Your task to perform on an android device: turn on translation in the chrome app Image 0: 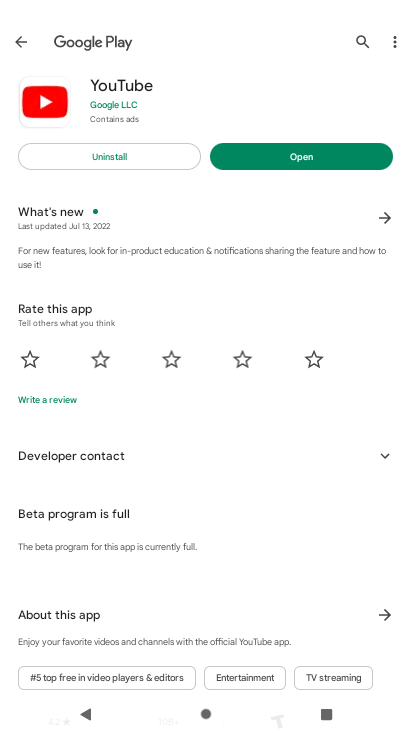
Step 0: press home button
Your task to perform on an android device: turn on translation in the chrome app Image 1: 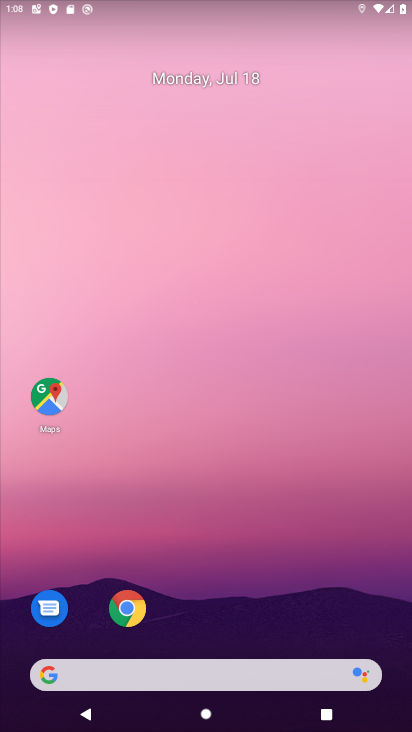
Step 1: drag from (272, 602) to (212, 174)
Your task to perform on an android device: turn on translation in the chrome app Image 2: 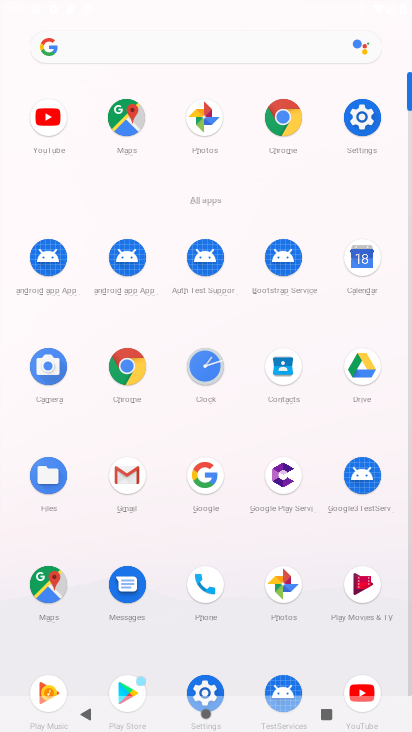
Step 2: click (276, 130)
Your task to perform on an android device: turn on translation in the chrome app Image 3: 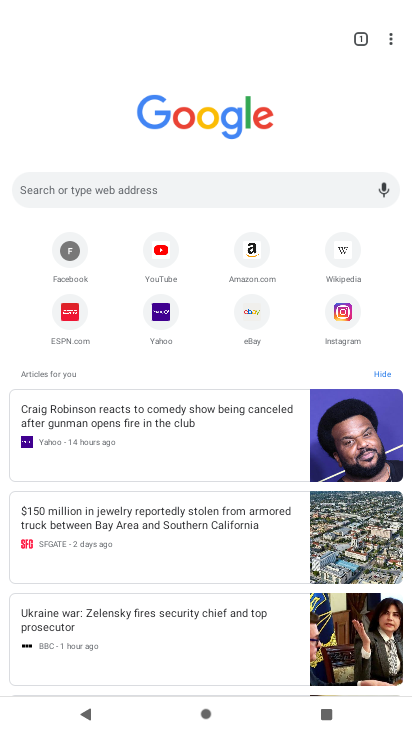
Step 3: click (393, 36)
Your task to perform on an android device: turn on translation in the chrome app Image 4: 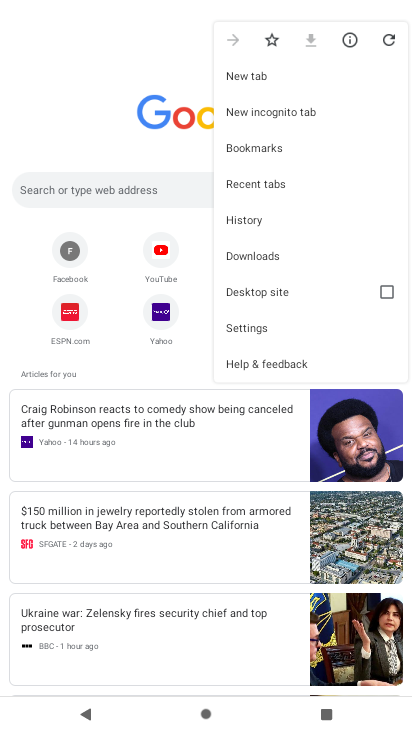
Step 4: click (249, 331)
Your task to perform on an android device: turn on translation in the chrome app Image 5: 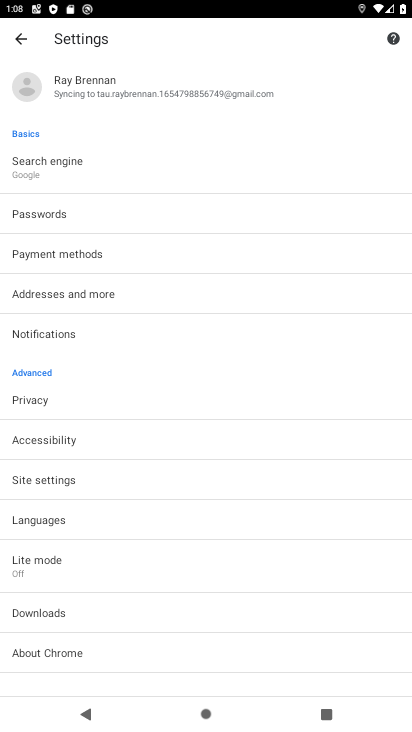
Step 5: click (51, 523)
Your task to perform on an android device: turn on translation in the chrome app Image 6: 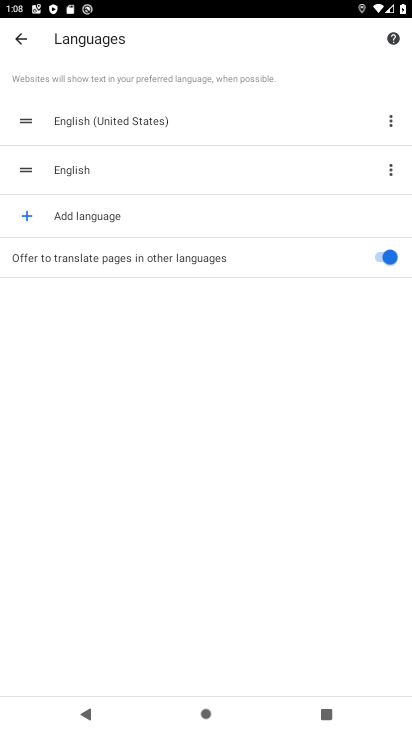
Step 6: task complete